Your task to perform on an android device: turn on notifications settings in the gmail app Image 0: 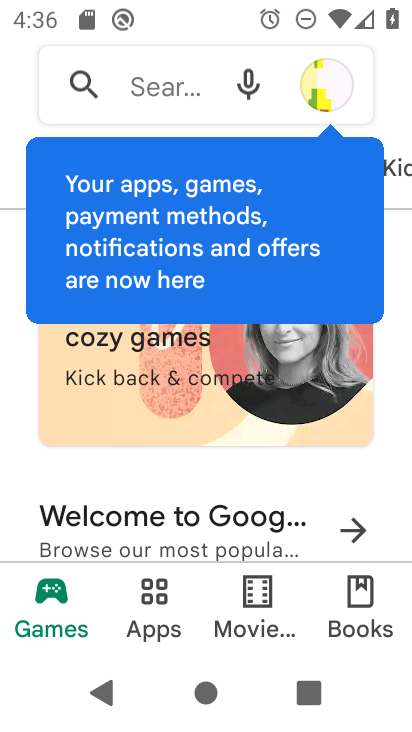
Step 0: press home button
Your task to perform on an android device: turn on notifications settings in the gmail app Image 1: 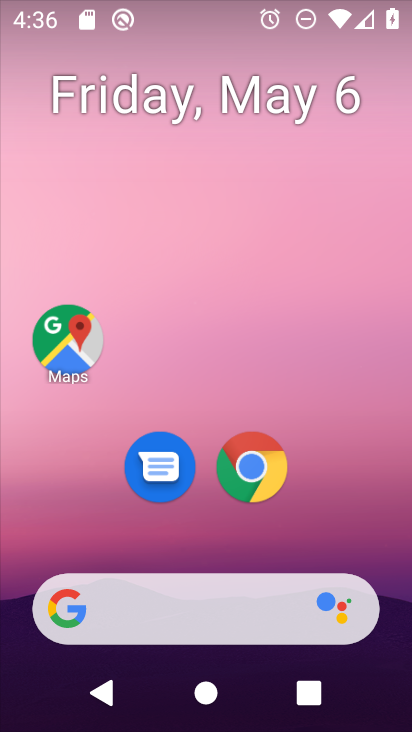
Step 1: drag from (272, 303) to (293, 127)
Your task to perform on an android device: turn on notifications settings in the gmail app Image 2: 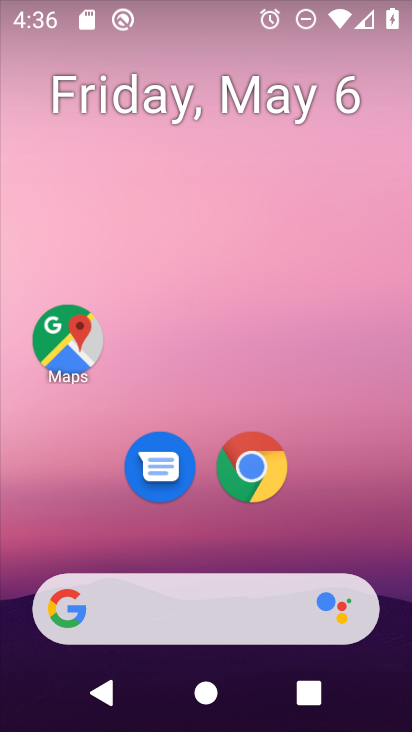
Step 2: drag from (259, 518) to (282, 108)
Your task to perform on an android device: turn on notifications settings in the gmail app Image 3: 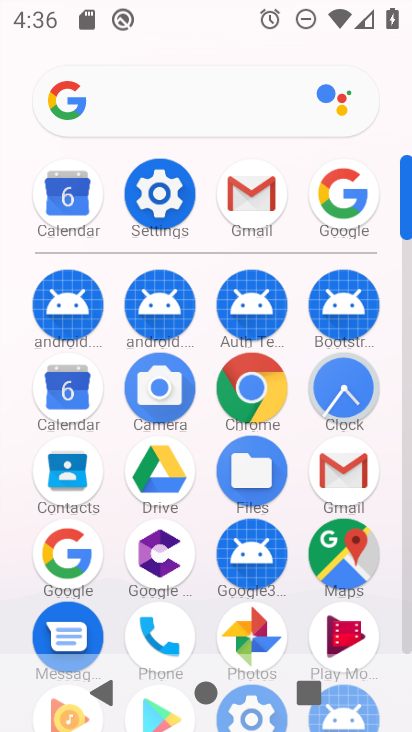
Step 3: click (271, 199)
Your task to perform on an android device: turn on notifications settings in the gmail app Image 4: 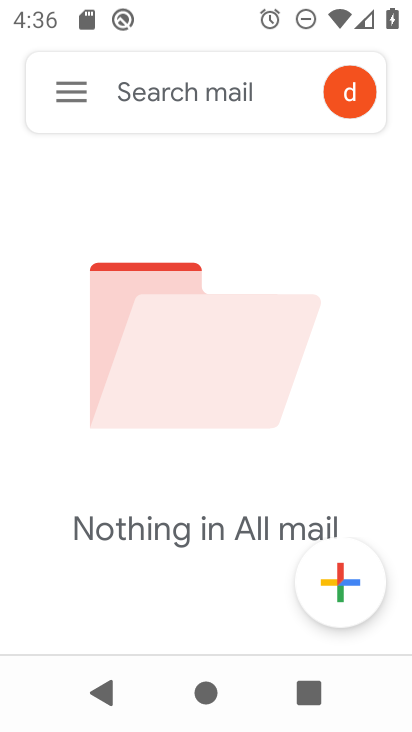
Step 4: click (75, 92)
Your task to perform on an android device: turn on notifications settings in the gmail app Image 5: 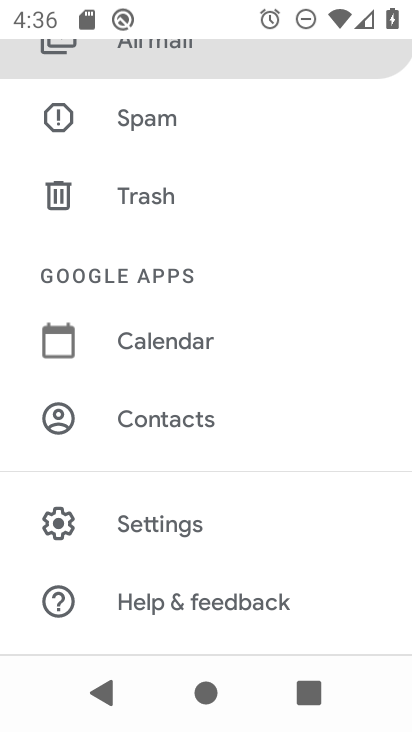
Step 5: click (169, 518)
Your task to perform on an android device: turn on notifications settings in the gmail app Image 6: 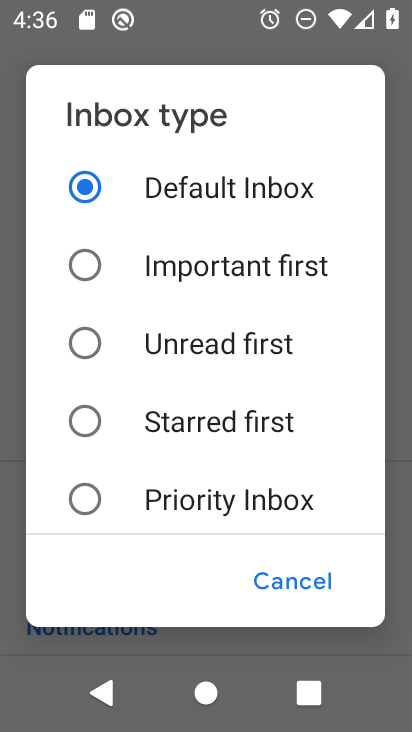
Step 6: click (293, 579)
Your task to perform on an android device: turn on notifications settings in the gmail app Image 7: 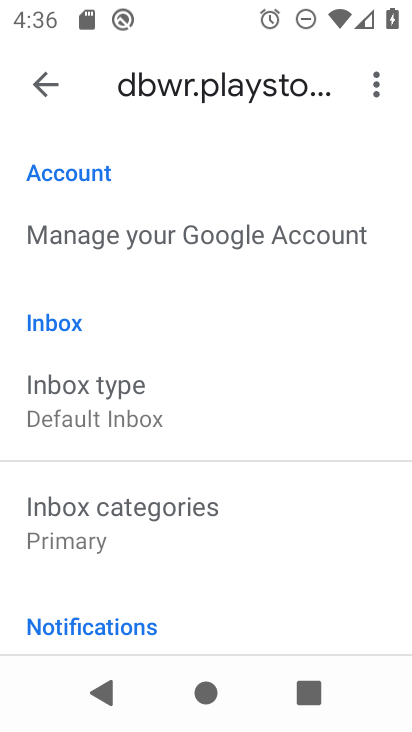
Step 7: drag from (129, 576) to (136, 271)
Your task to perform on an android device: turn on notifications settings in the gmail app Image 8: 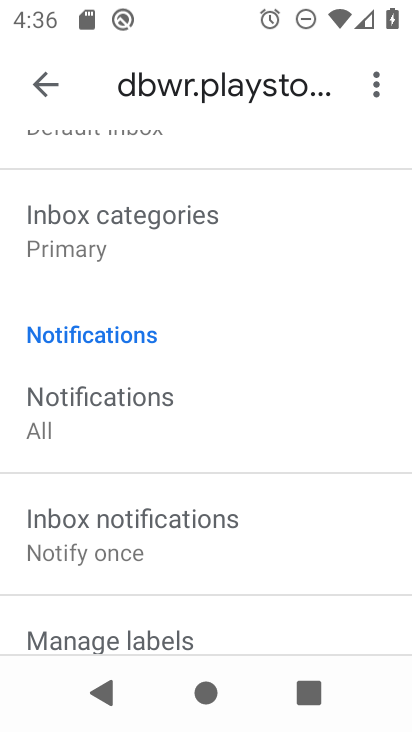
Step 8: click (73, 406)
Your task to perform on an android device: turn on notifications settings in the gmail app Image 9: 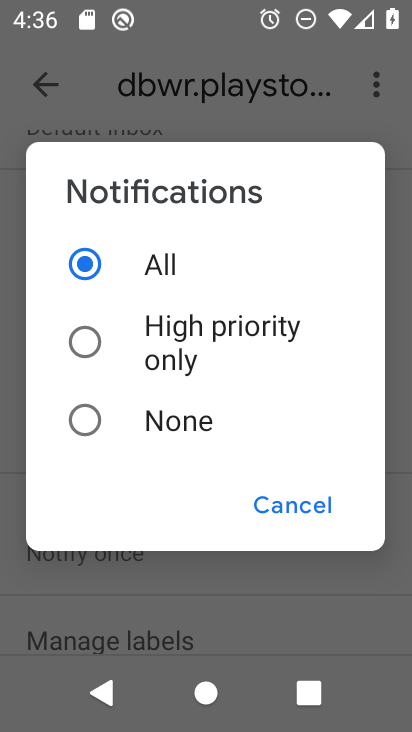
Step 9: task complete